Your task to perform on an android device: set an alarm Image 0: 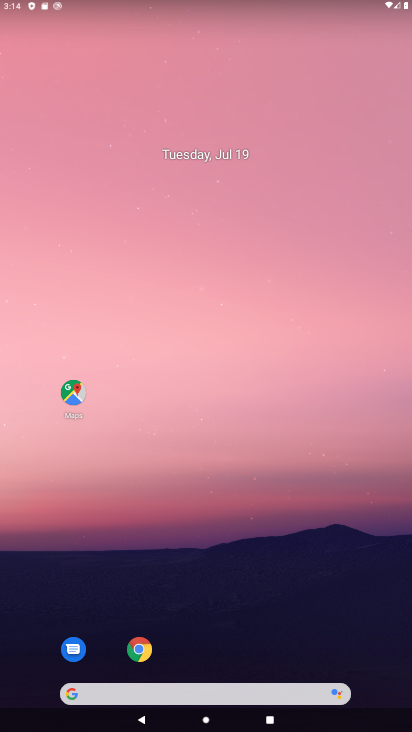
Step 0: drag from (200, 655) to (208, 336)
Your task to perform on an android device: set an alarm Image 1: 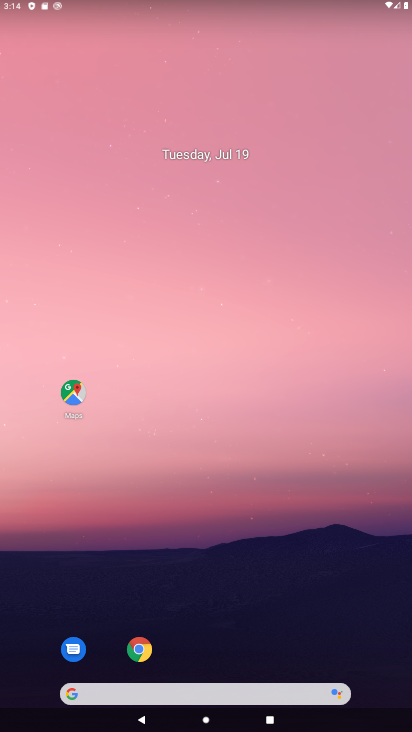
Step 1: drag from (177, 573) to (203, 63)
Your task to perform on an android device: set an alarm Image 2: 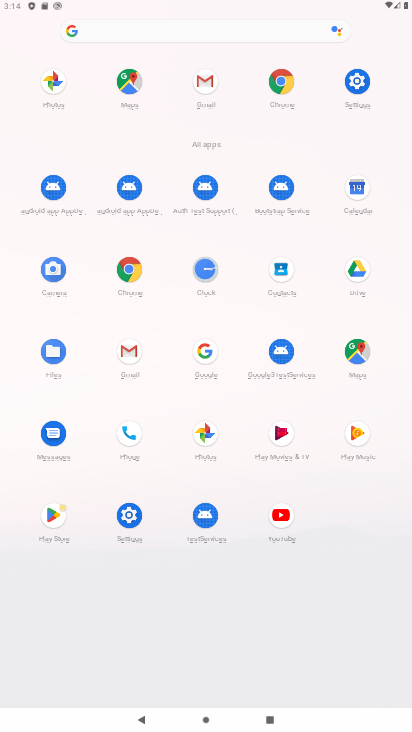
Step 2: click (212, 263)
Your task to perform on an android device: set an alarm Image 3: 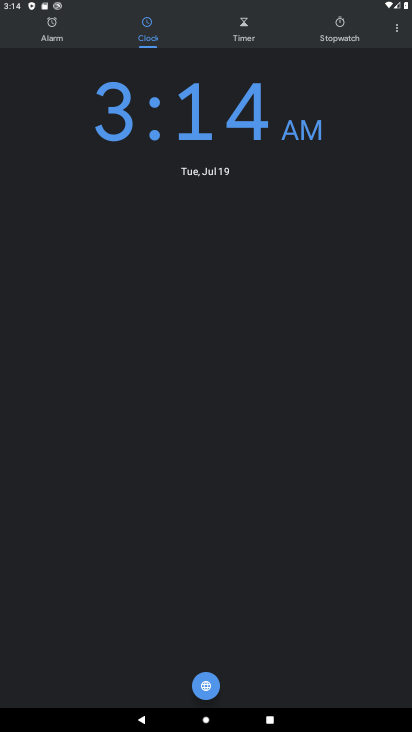
Step 3: click (53, 27)
Your task to perform on an android device: set an alarm Image 4: 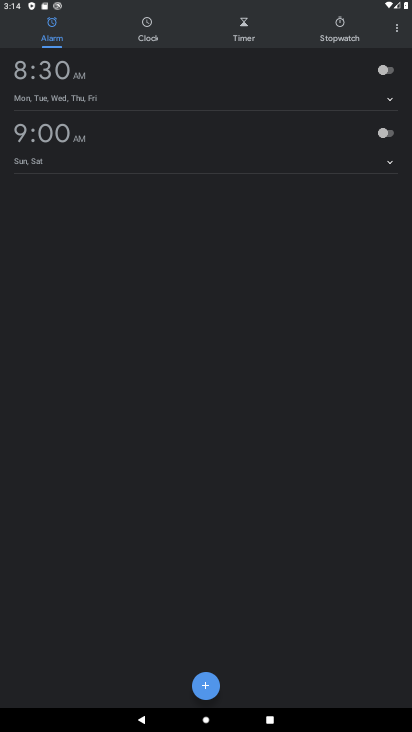
Step 4: click (389, 135)
Your task to perform on an android device: set an alarm Image 5: 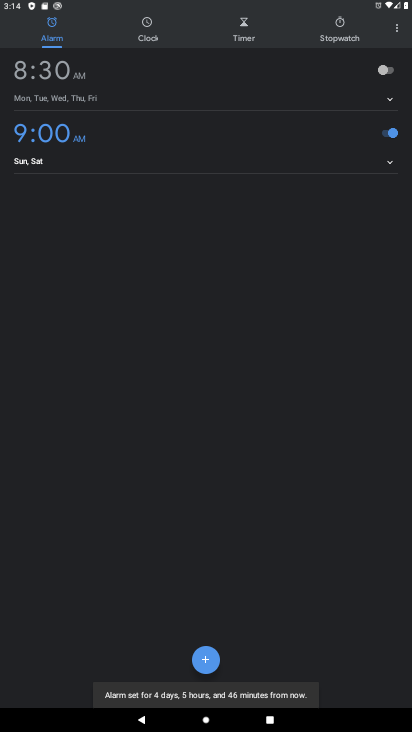
Step 5: task complete